Your task to perform on an android device: turn off priority inbox in the gmail app Image 0: 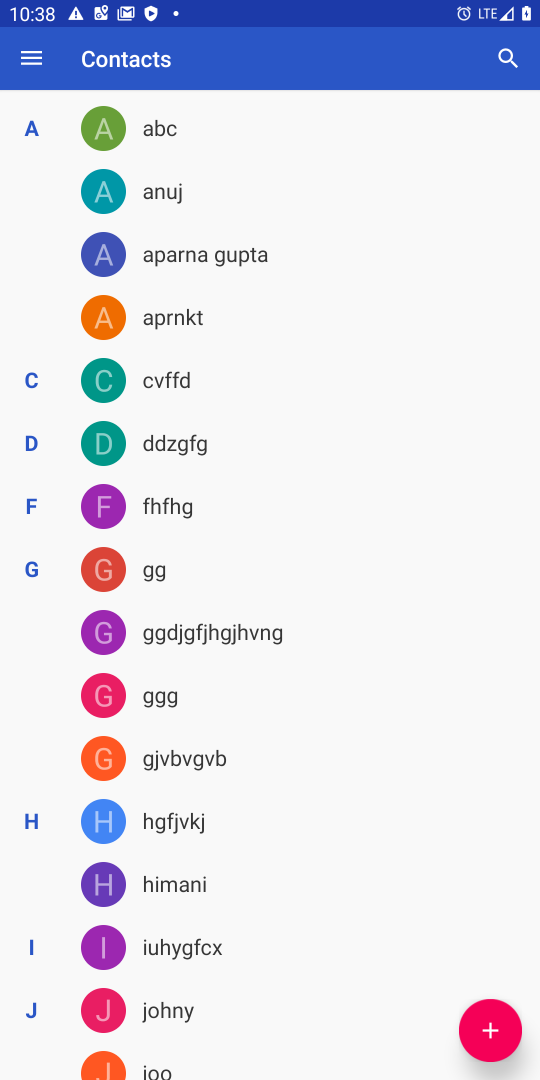
Step 0: press home button
Your task to perform on an android device: turn off priority inbox in the gmail app Image 1: 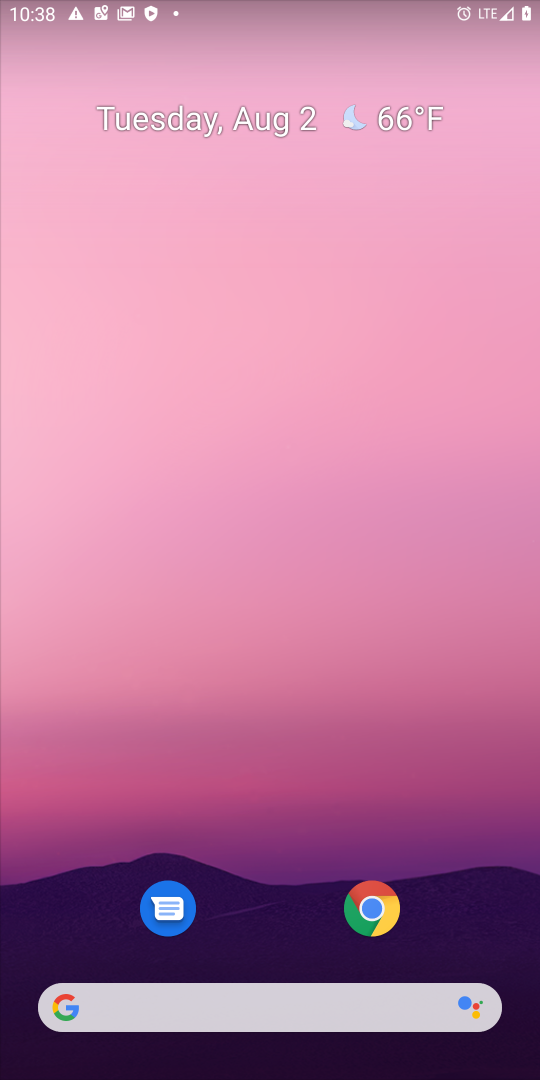
Step 1: drag from (319, 768) to (339, 159)
Your task to perform on an android device: turn off priority inbox in the gmail app Image 2: 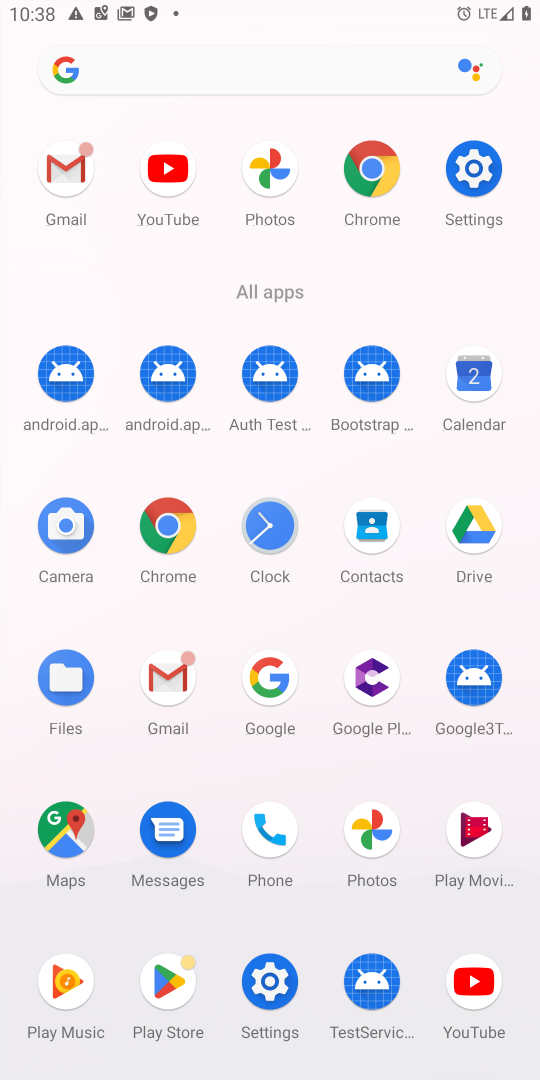
Step 2: click (171, 698)
Your task to perform on an android device: turn off priority inbox in the gmail app Image 3: 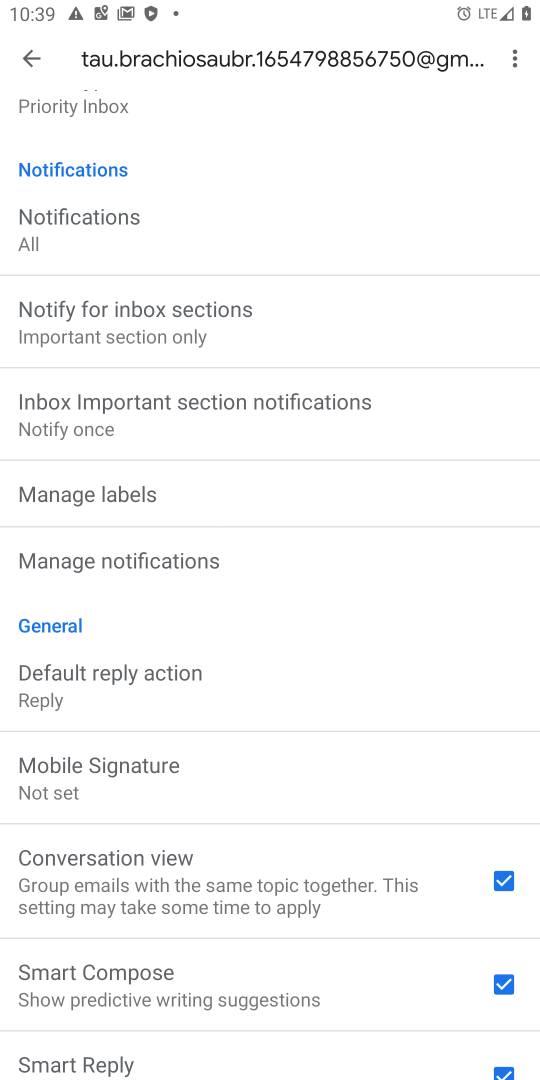
Step 3: drag from (354, 299) to (288, 820)
Your task to perform on an android device: turn off priority inbox in the gmail app Image 4: 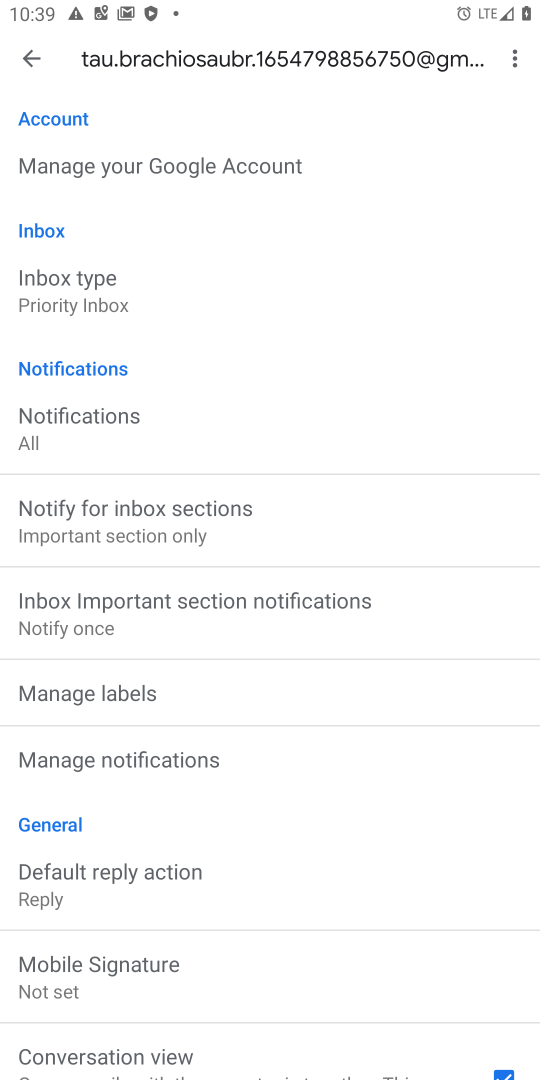
Step 4: click (158, 306)
Your task to perform on an android device: turn off priority inbox in the gmail app Image 5: 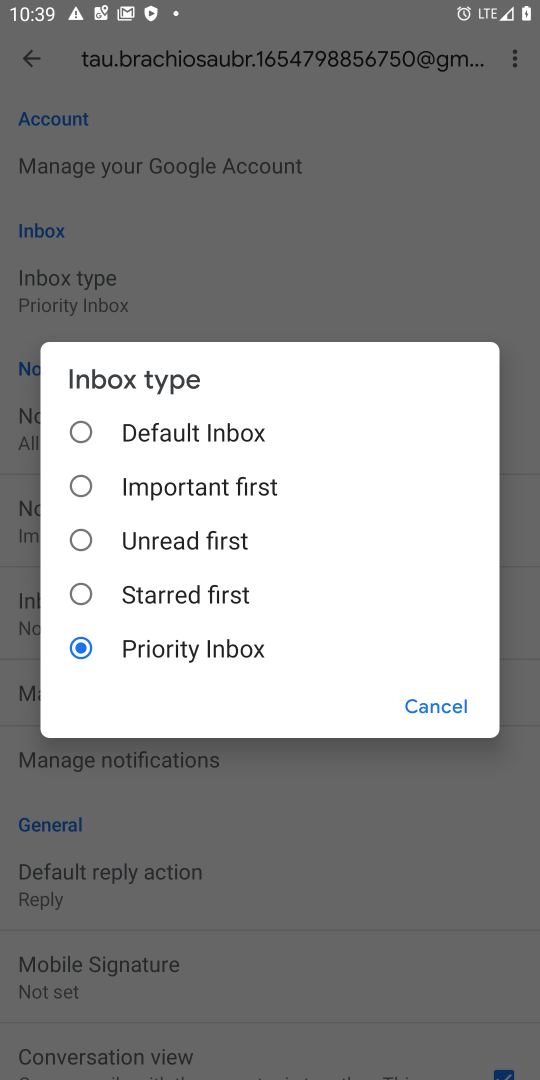
Step 5: click (199, 432)
Your task to perform on an android device: turn off priority inbox in the gmail app Image 6: 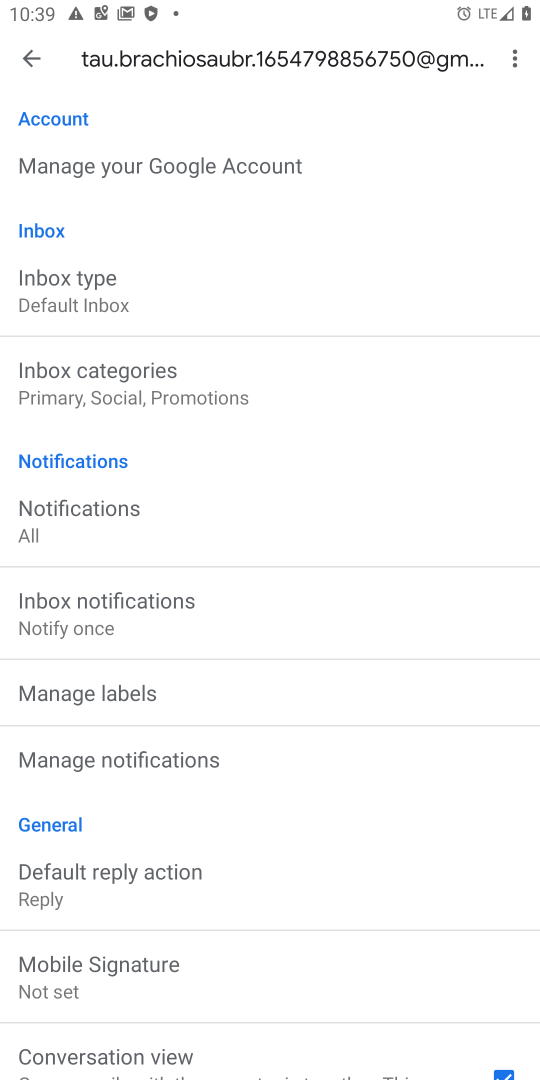
Step 6: task complete